Your task to perform on an android device: star an email in the gmail app Image 0: 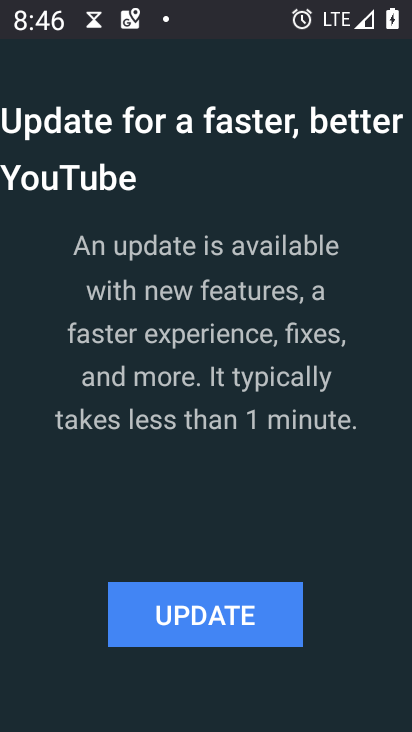
Step 0: press home button
Your task to perform on an android device: star an email in the gmail app Image 1: 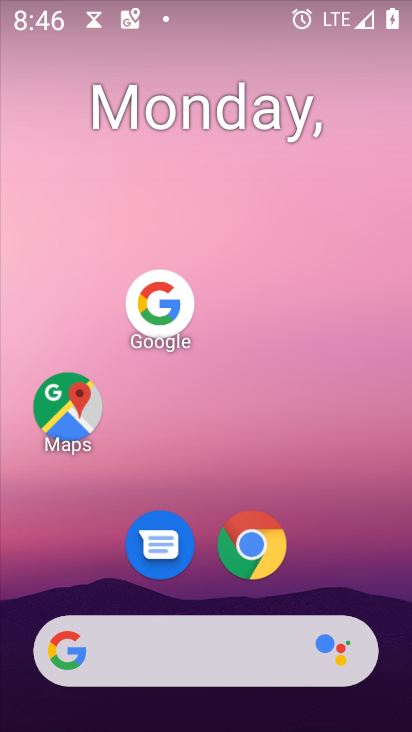
Step 1: drag from (146, 642) to (251, 177)
Your task to perform on an android device: star an email in the gmail app Image 2: 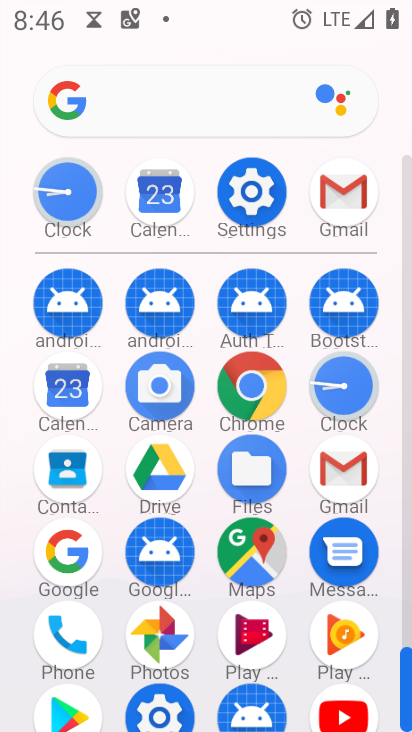
Step 2: click (357, 199)
Your task to perform on an android device: star an email in the gmail app Image 3: 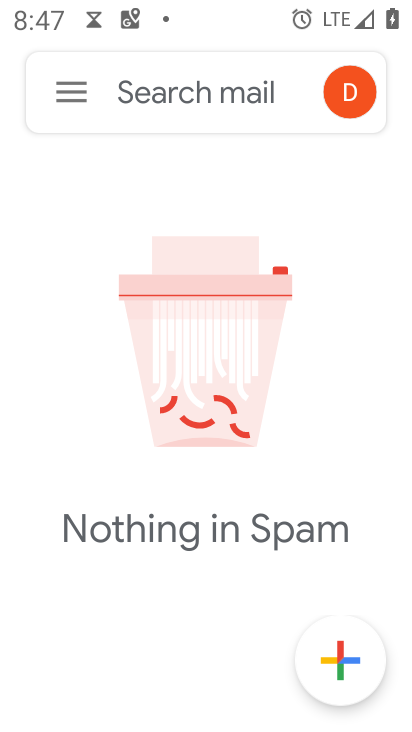
Step 3: task complete